Your task to perform on an android device: Open Google Image 0: 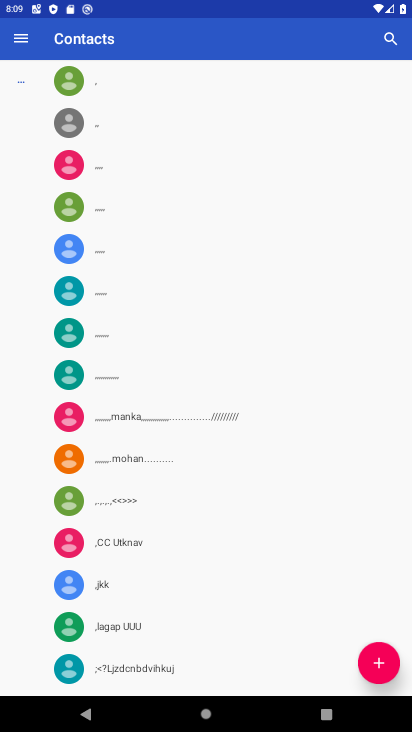
Step 0: press back button
Your task to perform on an android device: Open Google Image 1: 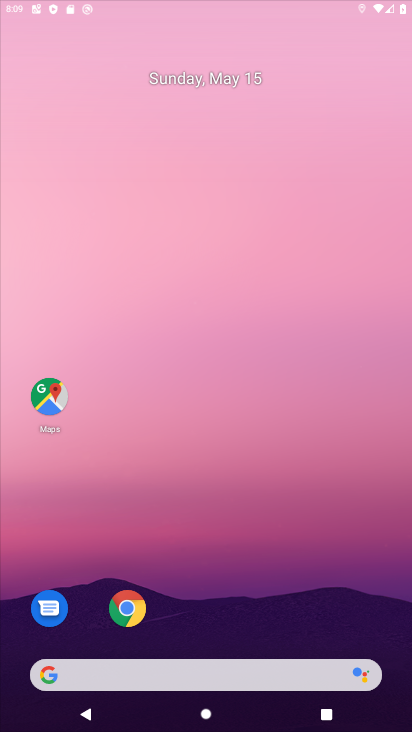
Step 1: press home button
Your task to perform on an android device: Open Google Image 2: 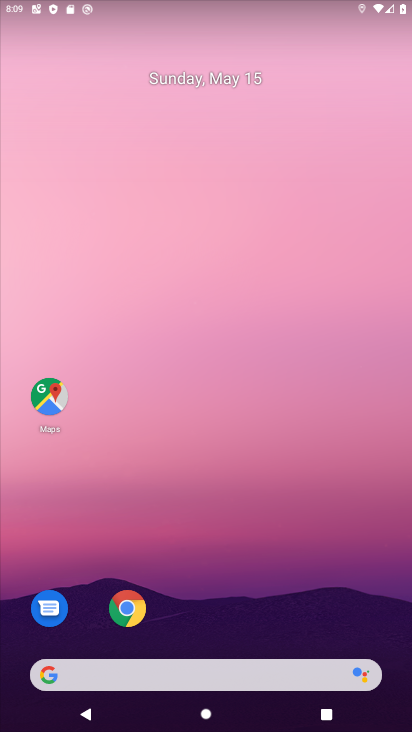
Step 2: press home button
Your task to perform on an android device: Open Google Image 3: 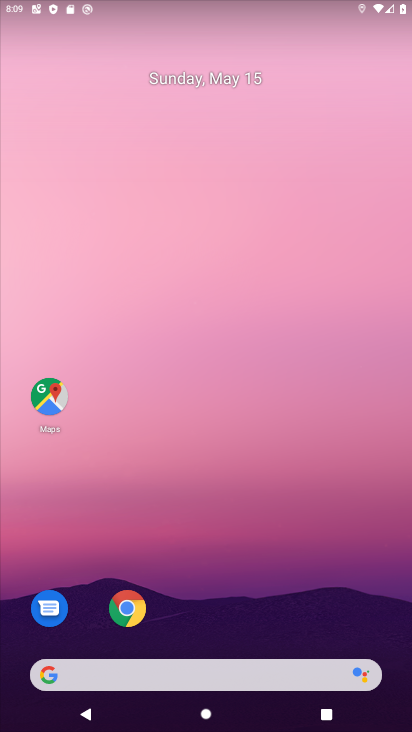
Step 3: press home button
Your task to perform on an android device: Open Google Image 4: 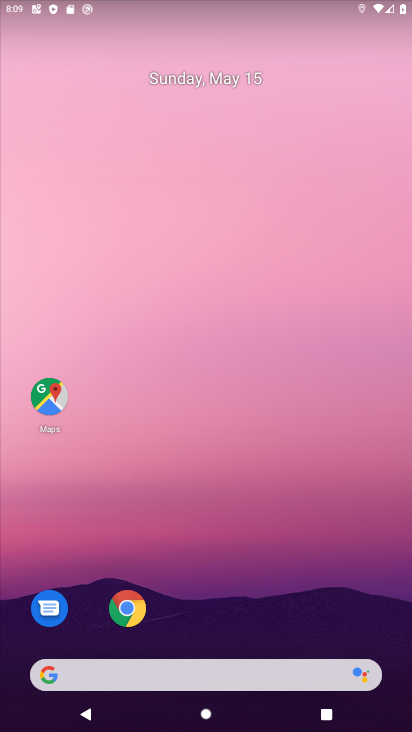
Step 4: click (153, 148)
Your task to perform on an android device: Open Google Image 5: 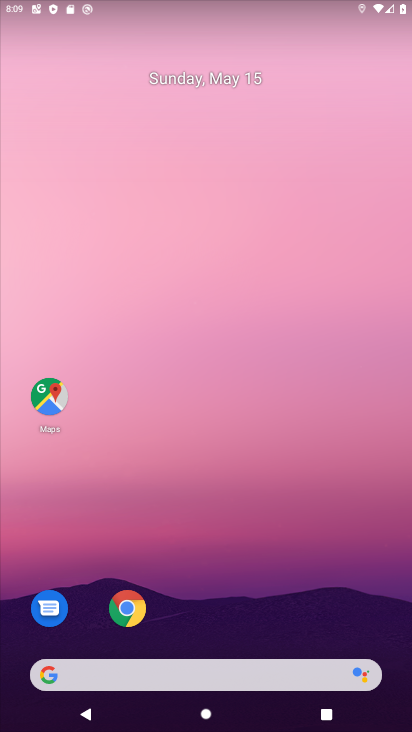
Step 5: drag from (175, 193) to (162, 29)
Your task to perform on an android device: Open Google Image 6: 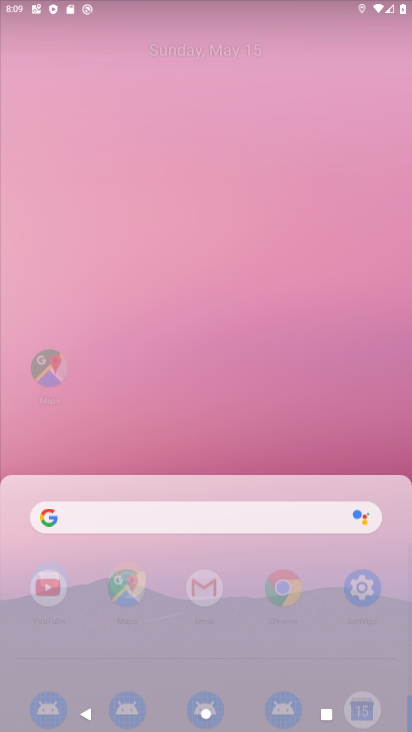
Step 6: drag from (277, 554) to (199, 49)
Your task to perform on an android device: Open Google Image 7: 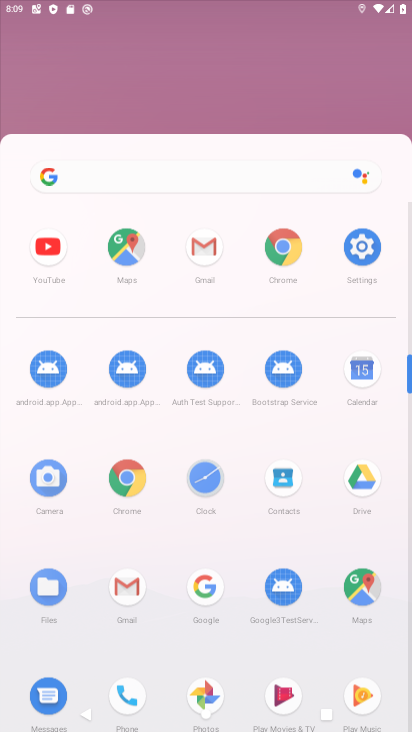
Step 7: drag from (257, 527) to (163, 133)
Your task to perform on an android device: Open Google Image 8: 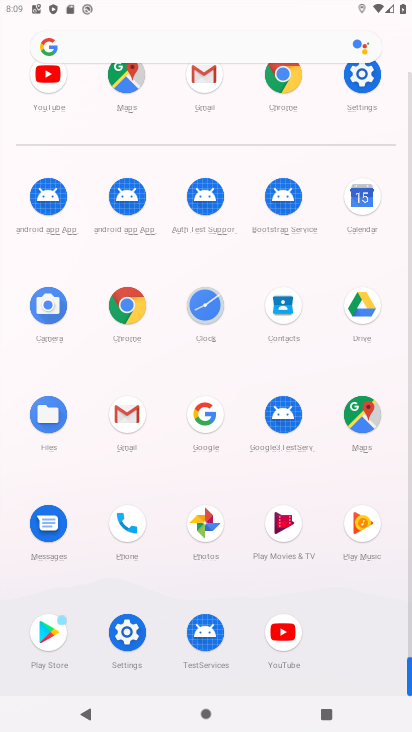
Step 8: click (204, 412)
Your task to perform on an android device: Open Google Image 9: 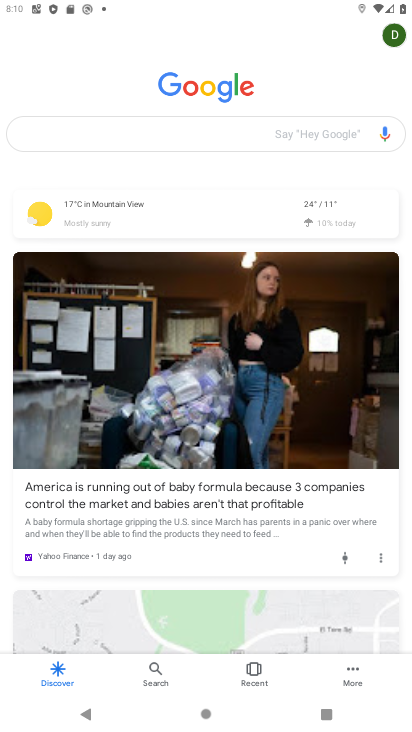
Step 9: task complete